Your task to perform on an android device: Check the weather Image 0: 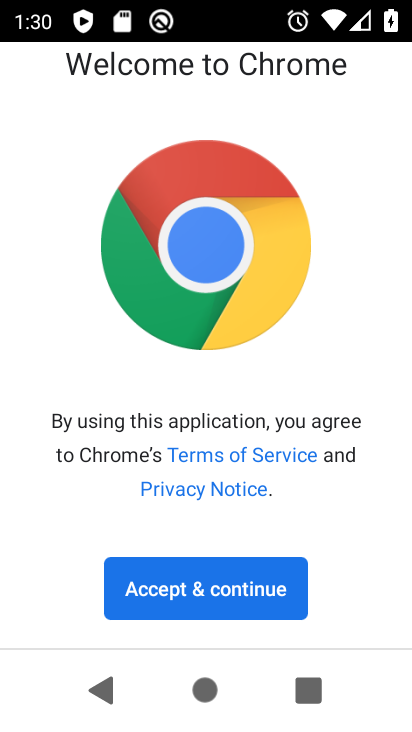
Step 0: press home button
Your task to perform on an android device: Check the weather Image 1: 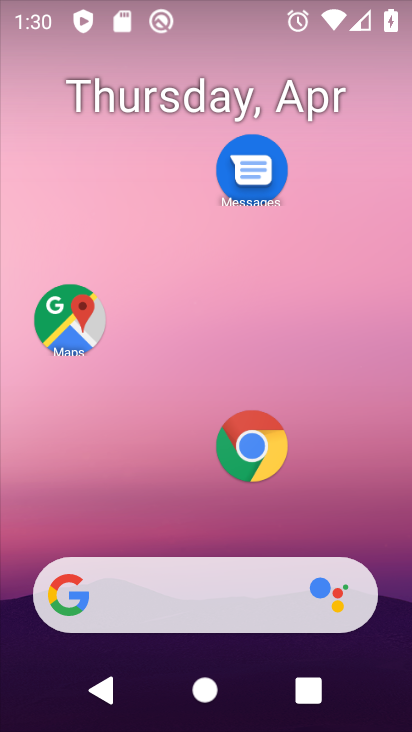
Step 1: drag from (153, 492) to (236, 17)
Your task to perform on an android device: Check the weather Image 2: 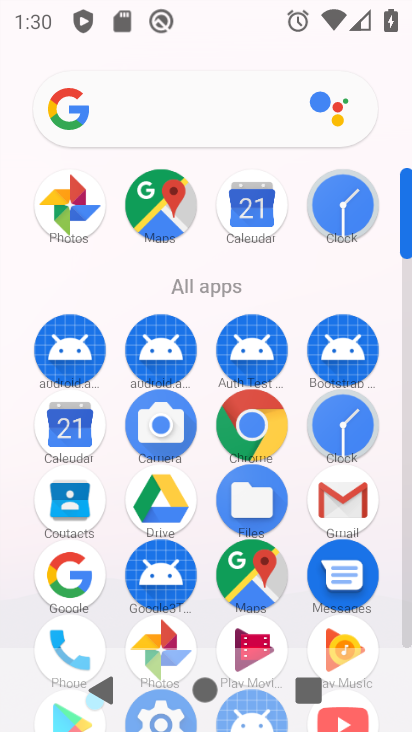
Step 2: click (70, 574)
Your task to perform on an android device: Check the weather Image 3: 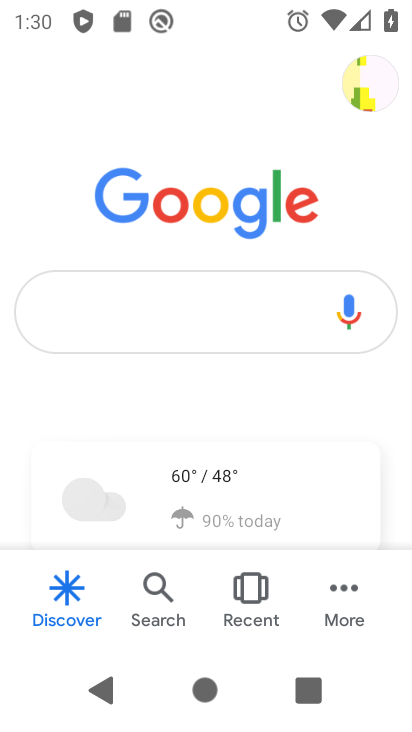
Step 3: click (215, 505)
Your task to perform on an android device: Check the weather Image 4: 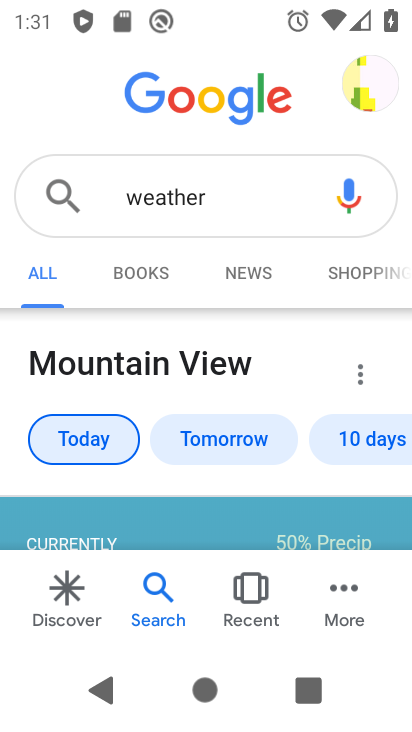
Step 4: task complete